Your task to perform on an android device: Open the map Image 0: 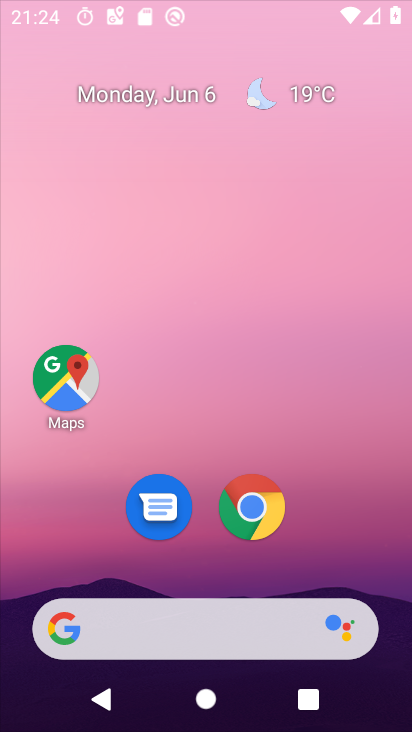
Step 0: press home button
Your task to perform on an android device: Open the map Image 1: 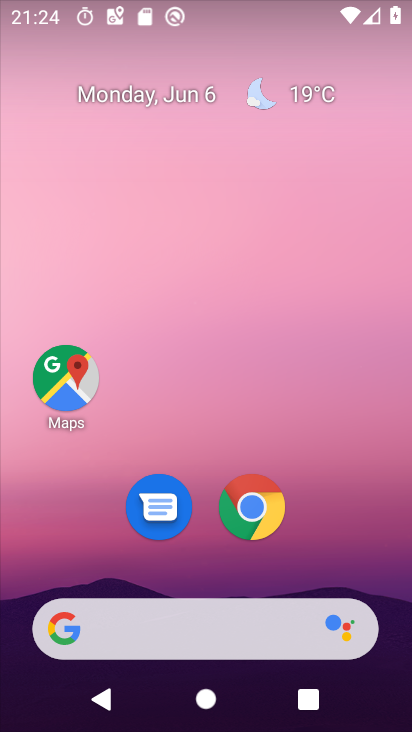
Step 1: click (51, 365)
Your task to perform on an android device: Open the map Image 2: 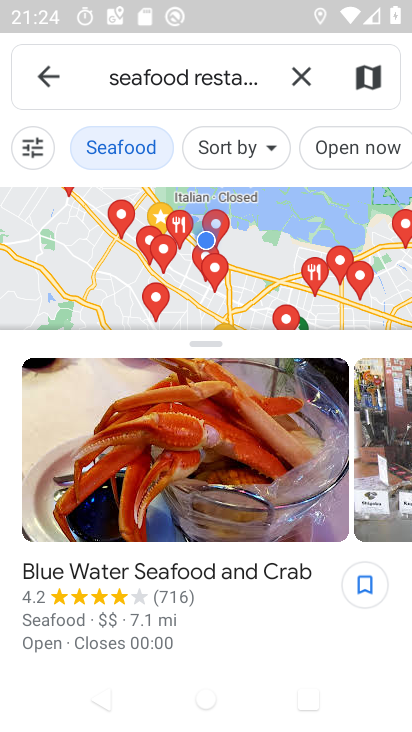
Step 2: task complete